Your task to perform on an android device: toggle location history Image 0: 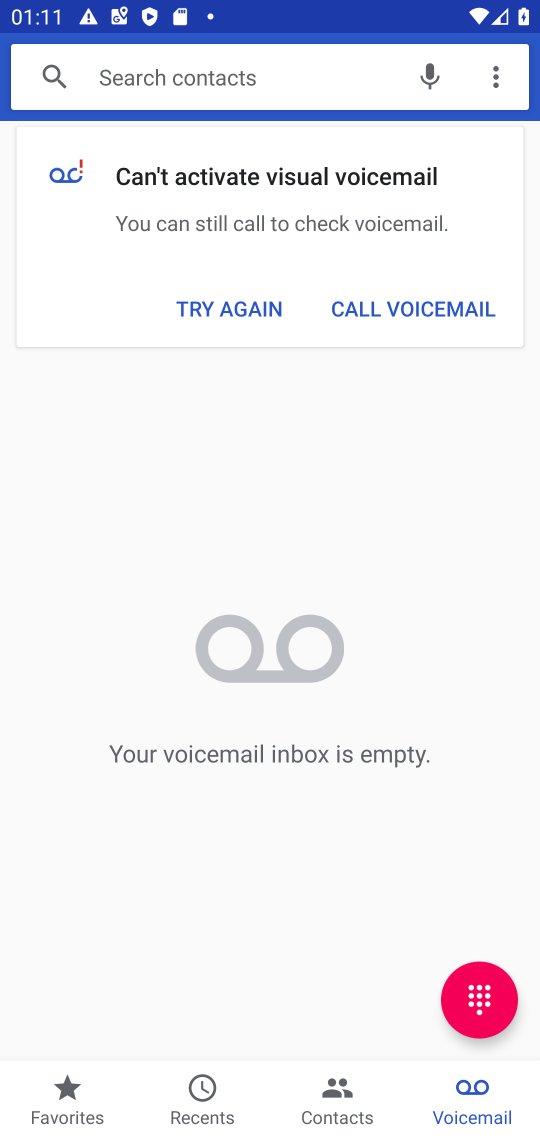
Step 0: press home button
Your task to perform on an android device: toggle location history Image 1: 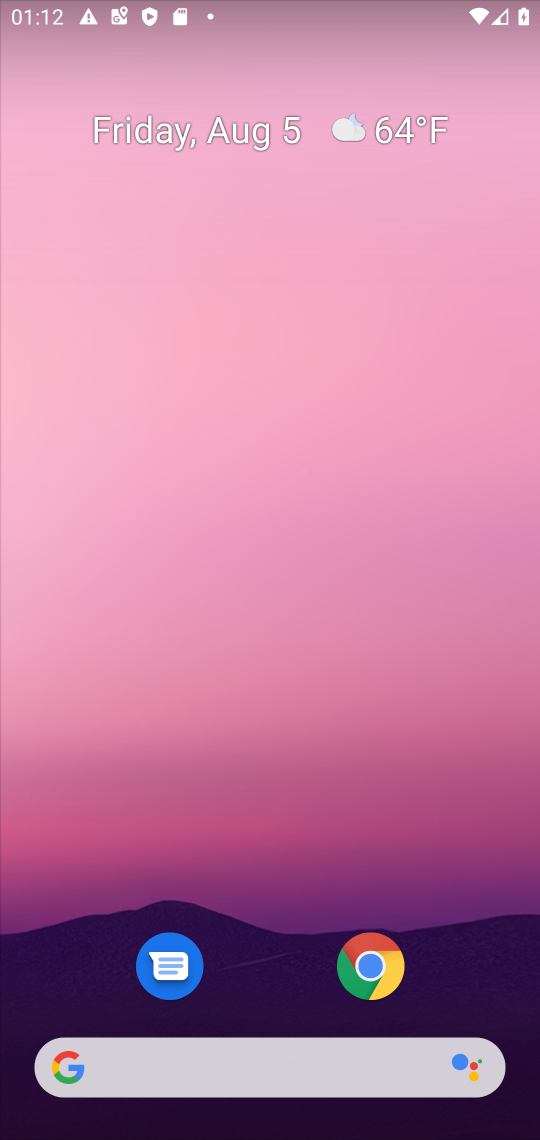
Step 1: drag from (285, 941) to (465, 30)
Your task to perform on an android device: toggle location history Image 2: 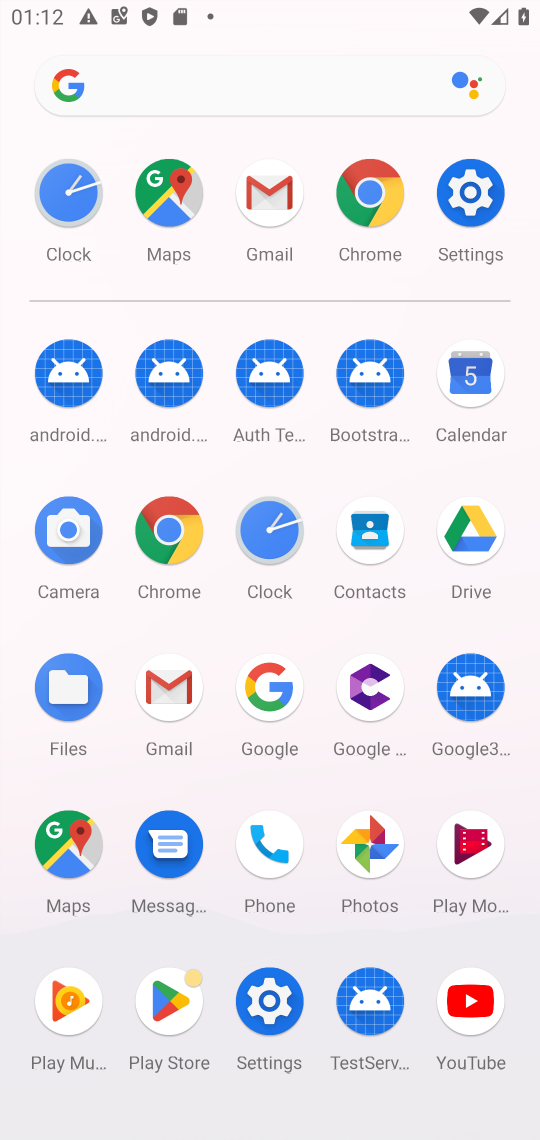
Step 2: click (463, 206)
Your task to perform on an android device: toggle location history Image 3: 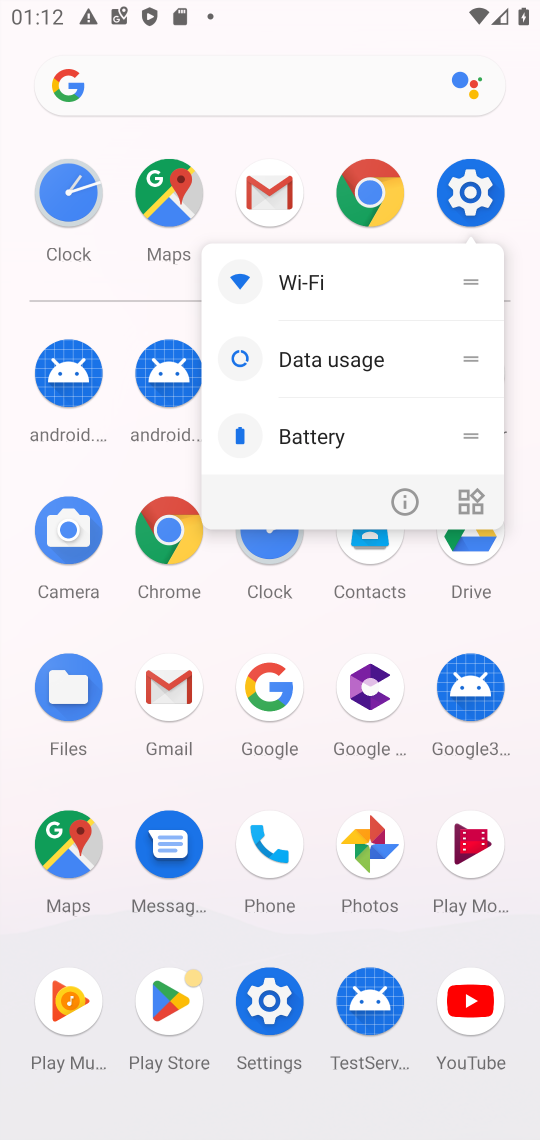
Step 3: click (473, 177)
Your task to perform on an android device: toggle location history Image 4: 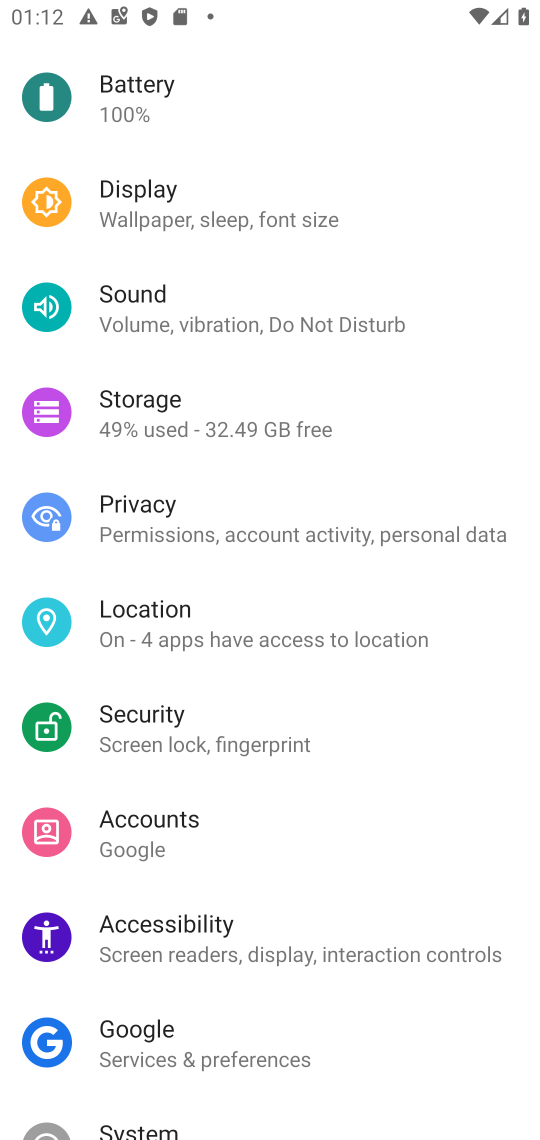
Step 4: click (208, 629)
Your task to perform on an android device: toggle location history Image 5: 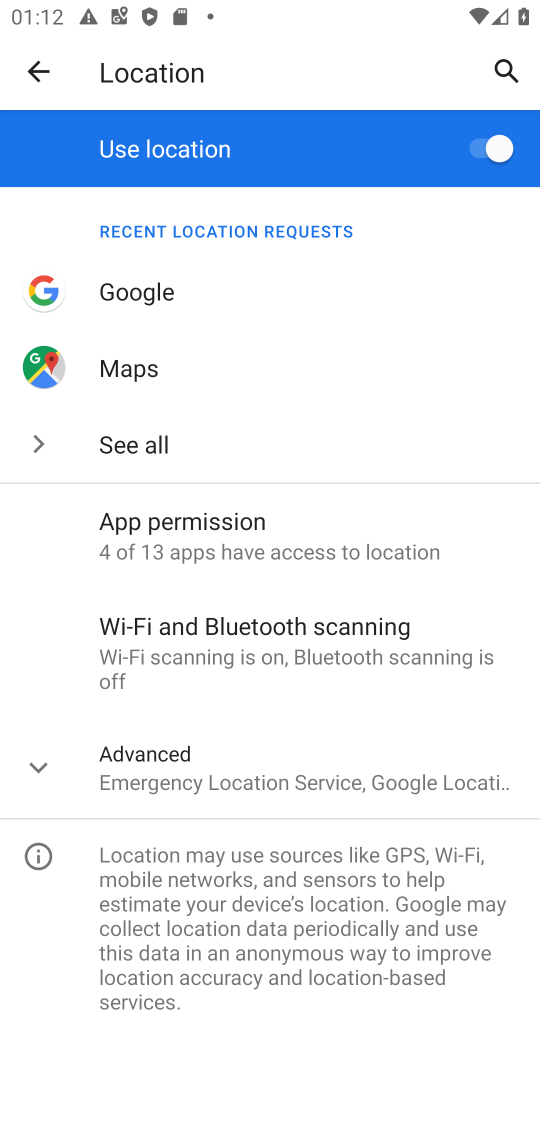
Step 5: click (32, 766)
Your task to perform on an android device: toggle location history Image 6: 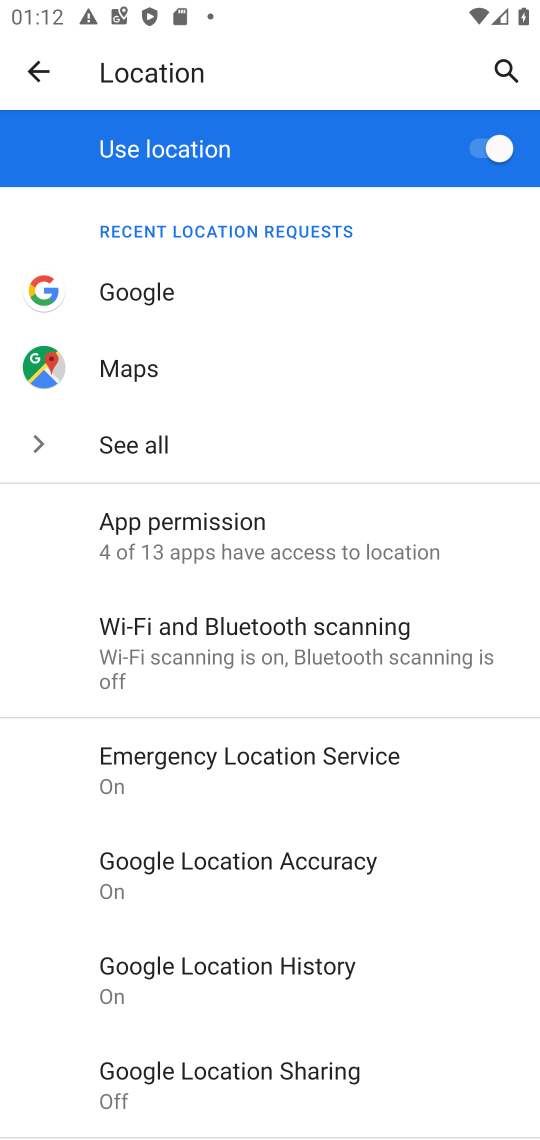
Step 6: click (193, 965)
Your task to perform on an android device: toggle location history Image 7: 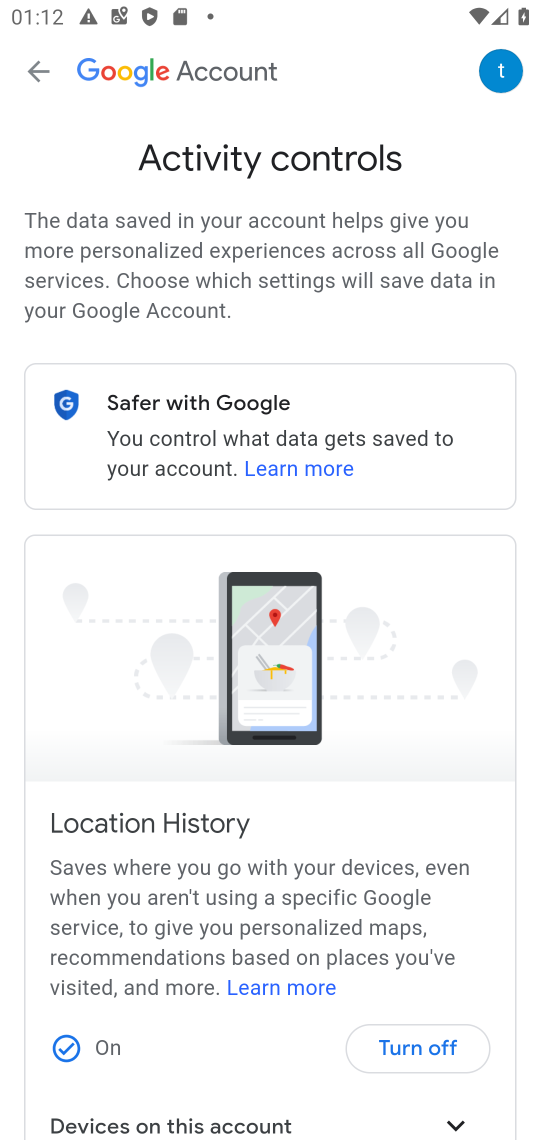
Step 7: click (437, 1046)
Your task to perform on an android device: toggle location history Image 8: 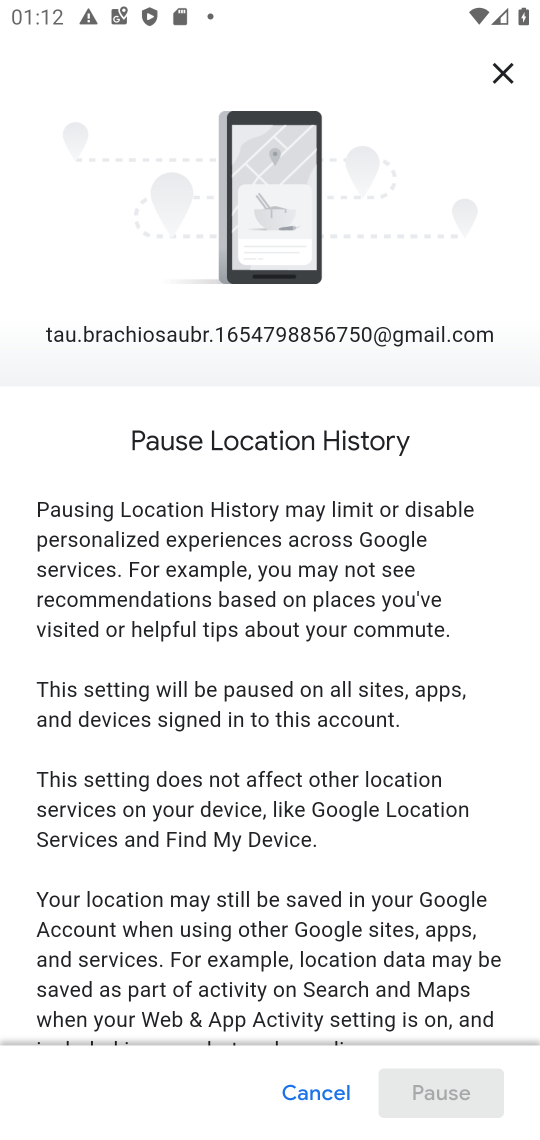
Step 8: drag from (345, 875) to (416, 236)
Your task to perform on an android device: toggle location history Image 9: 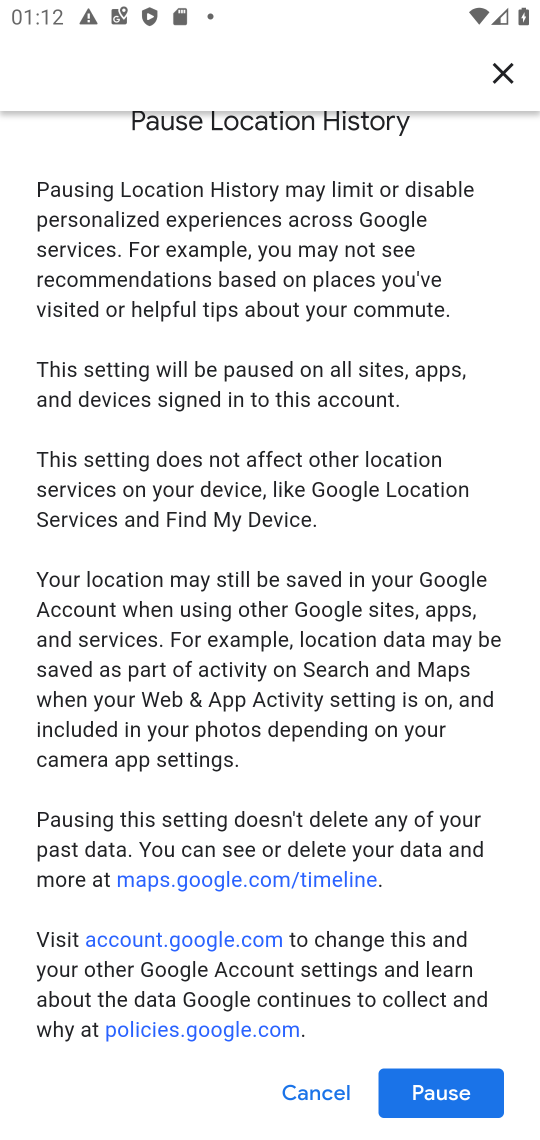
Step 9: click (431, 1089)
Your task to perform on an android device: toggle location history Image 10: 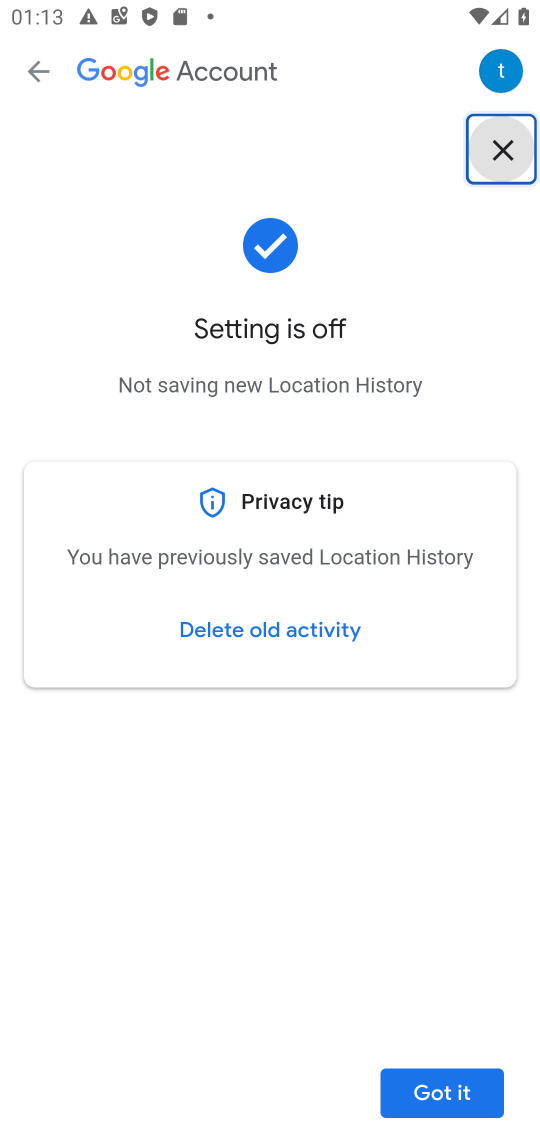
Step 10: click (460, 1085)
Your task to perform on an android device: toggle location history Image 11: 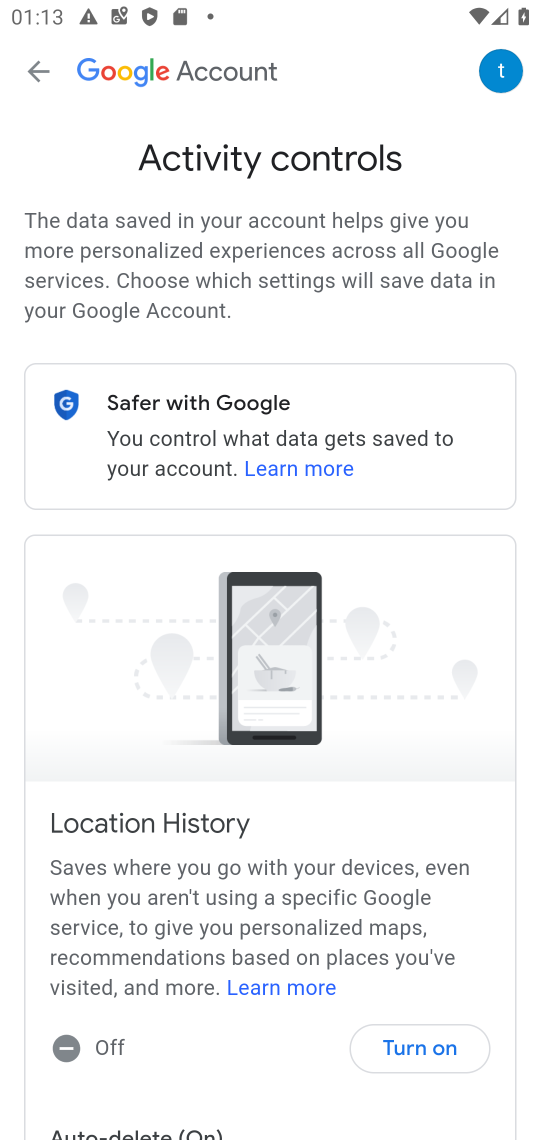
Step 11: task complete